Your task to perform on an android device: clear history in the chrome app Image 0: 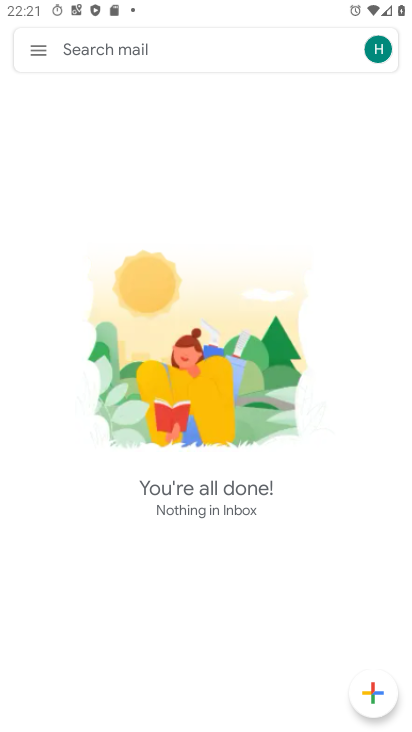
Step 0: press back button
Your task to perform on an android device: clear history in the chrome app Image 1: 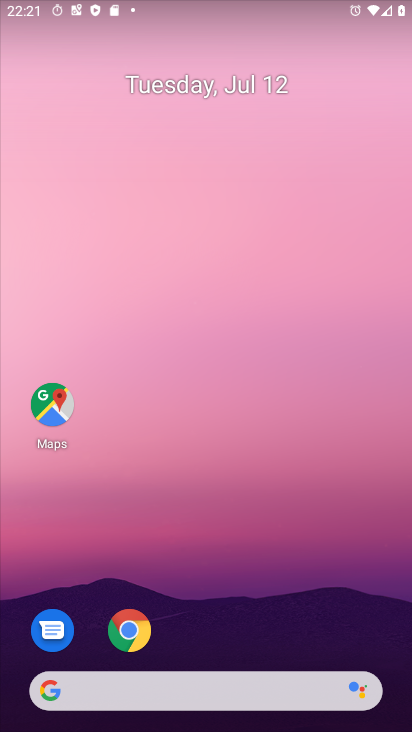
Step 1: click (132, 626)
Your task to perform on an android device: clear history in the chrome app Image 2: 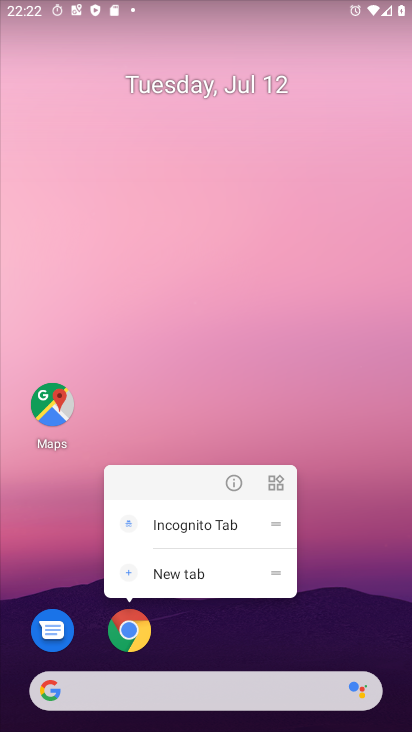
Step 2: click (141, 601)
Your task to perform on an android device: clear history in the chrome app Image 3: 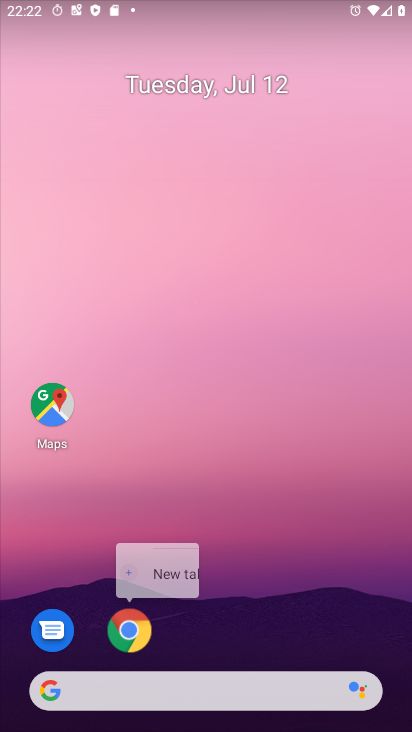
Step 3: click (124, 619)
Your task to perform on an android device: clear history in the chrome app Image 4: 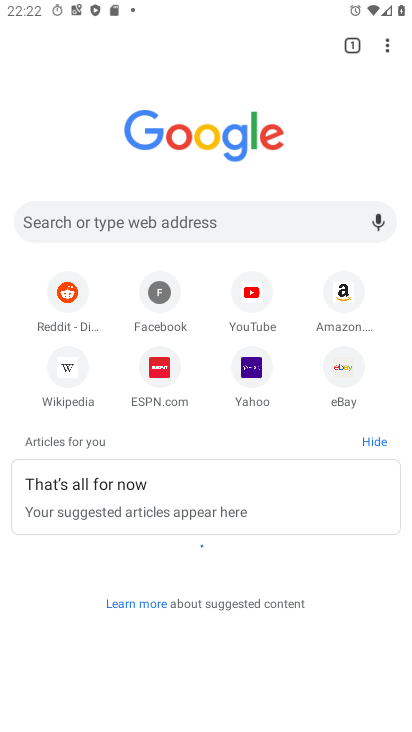
Step 4: drag from (388, 48) to (238, 255)
Your task to perform on an android device: clear history in the chrome app Image 5: 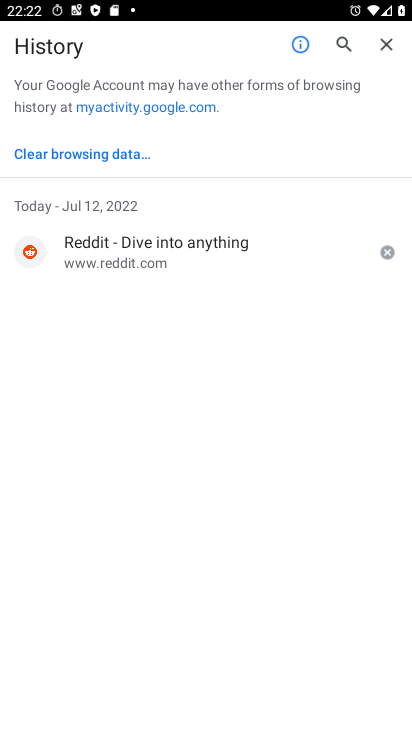
Step 5: click (79, 159)
Your task to perform on an android device: clear history in the chrome app Image 6: 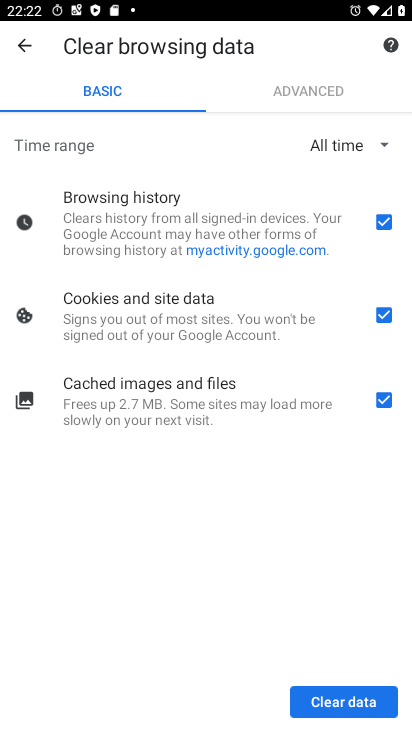
Step 6: click (332, 702)
Your task to perform on an android device: clear history in the chrome app Image 7: 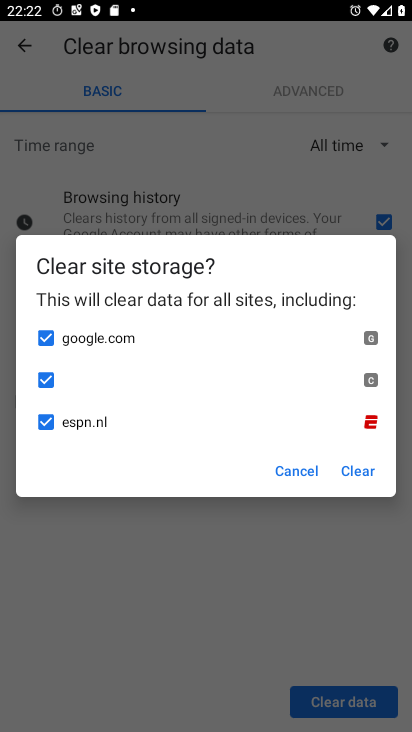
Step 7: click (350, 471)
Your task to perform on an android device: clear history in the chrome app Image 8: 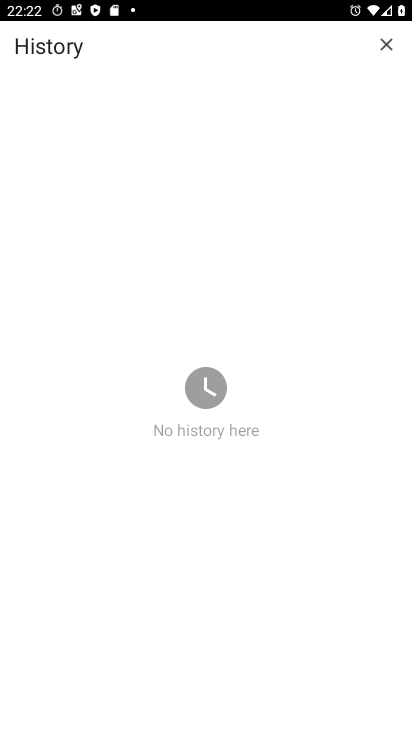
Step 8: task complete